Your task to perform on an android device: What's on my calendar today? Image 0: 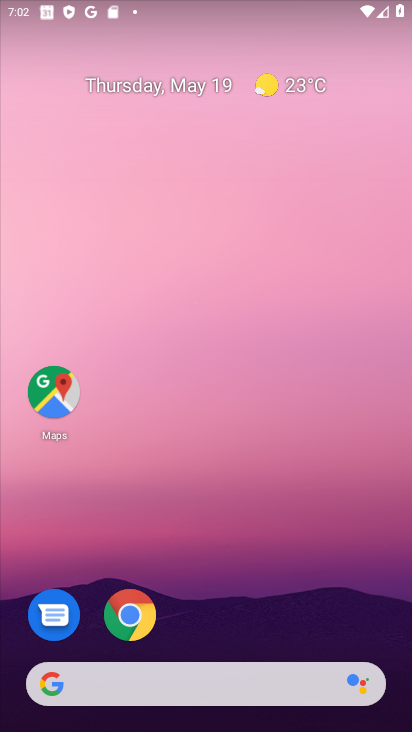
Step 0: drag from (308, 619) to (278, 118)
Your task to perform on an android device: What's on my calendar today? Image 1: 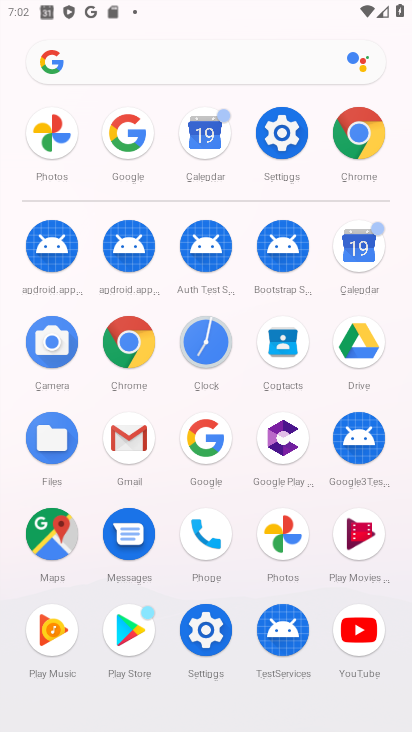
Step 1: click (369, 234)
Your task to perform on an android device: What's on my calendar today? Image 2: 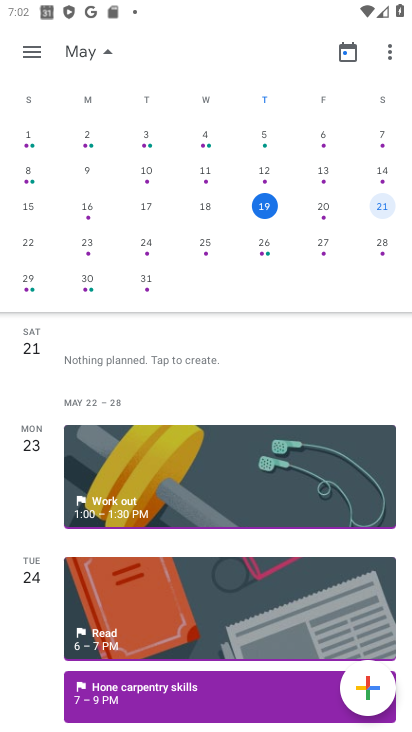
Step 2: task complete